Your task to perform on an android device: Is it going to rain tomorrow? Image 0: 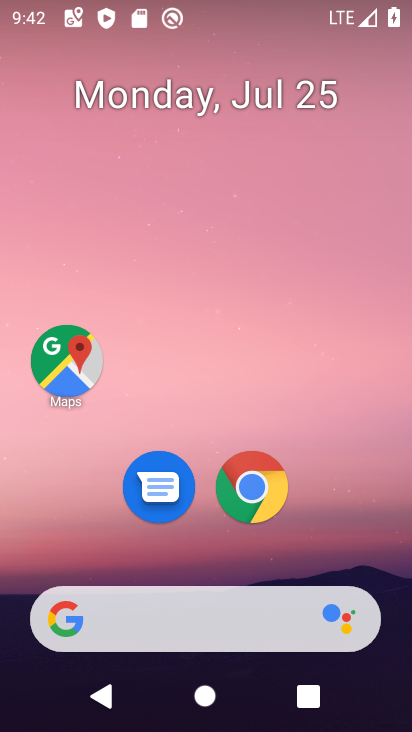
Step 0: drag from (194, 536) to (252, 39)
Your task to perform on an android device: Is it going to rain tomorrow? Image 1: 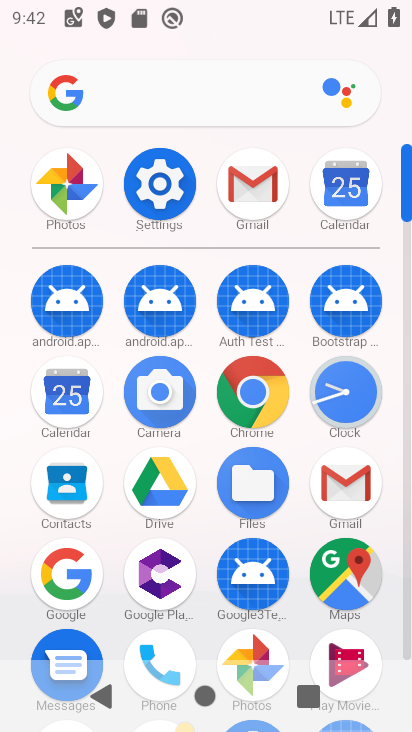
Step 1: click (168, 94)
Your task to perform on an android device: Is it going to rain tomorrow? Image 2: 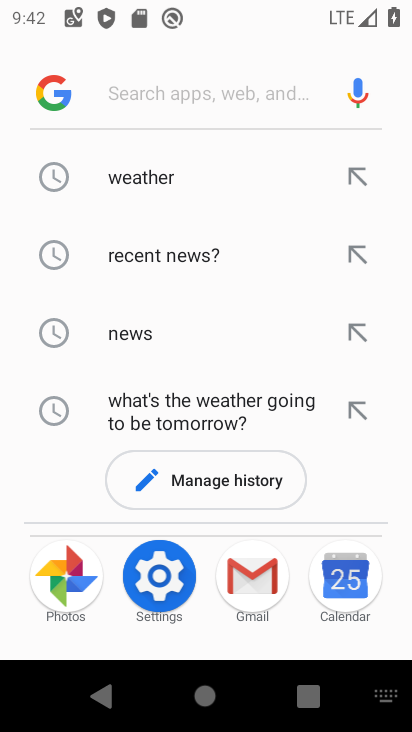
Step 2: click (155, 187)
Your task to perform on an android device: Is it going to rain tomorrow? Image 3: 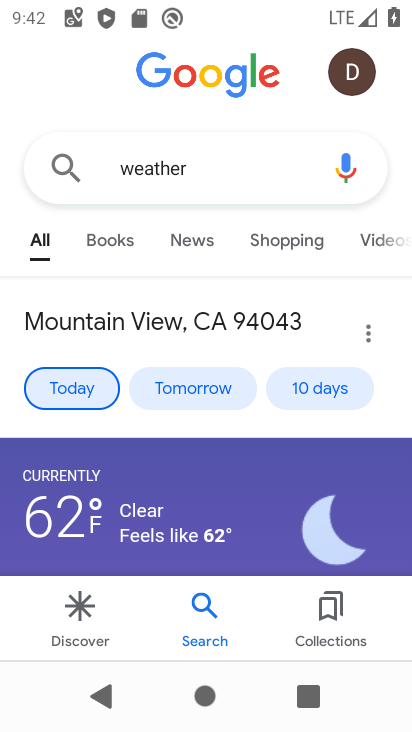
Step 3: click (190, 385)
Your task to perform on an android device: Is it going to rain tomorrow? Image 4: 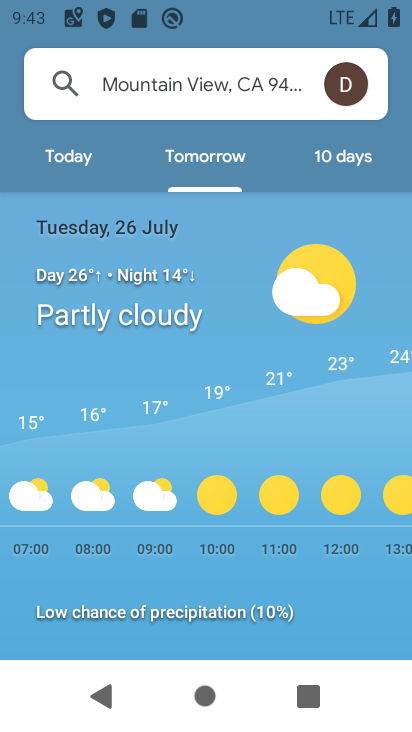
Step 4: task complete